Your task to perform on an android device: Find coffee shops on Maps Image 0: 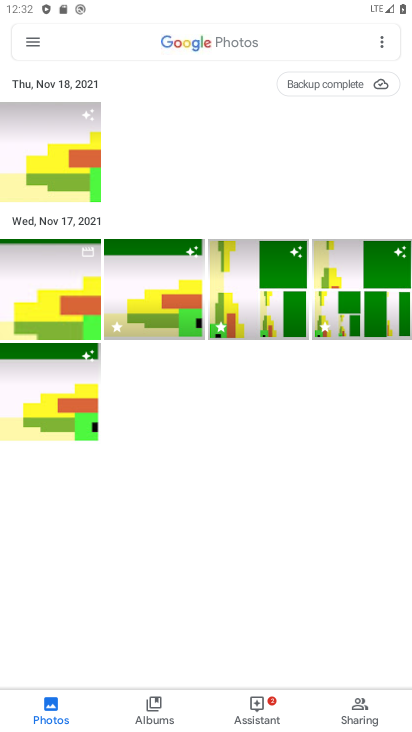
Step 0: press home button
Your task to perform on an android device: Find coffee shops on Maps Image 1: 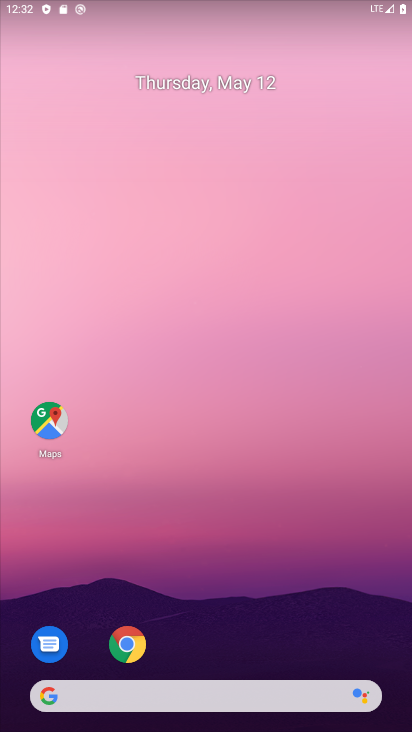
Step 1: click (58, 413)
Your task to perform on an android device: Find coffee shops on Maps Image 2: 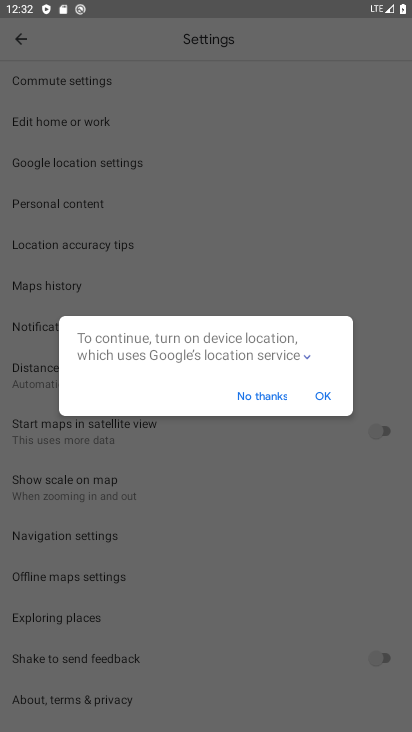
Step 2: click (265, 391)
Your task to perform on an android device: Find coffee shops on Maps Image 3: 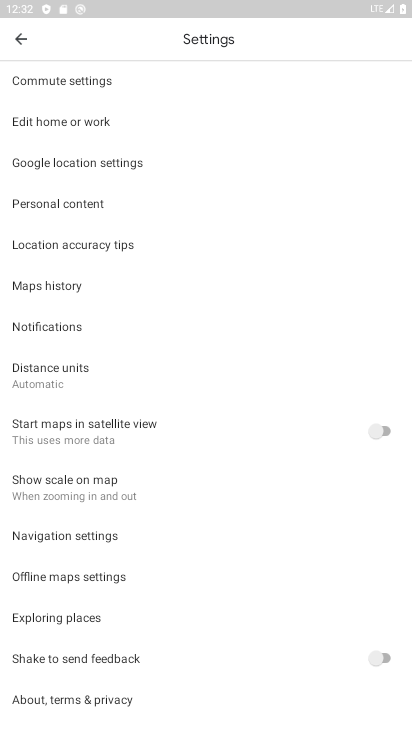
Step 3: click (19, 52)
Your task to perform on an android device: Find coffee shops on Maps Image 4: 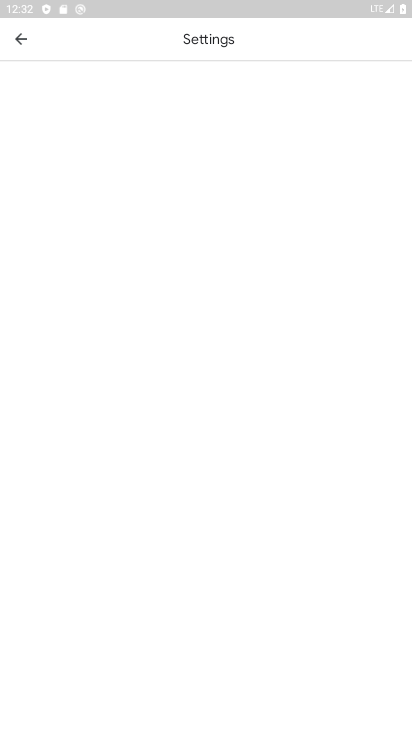
Step 4: click (15, 36)
Your task to perform on an android device: Find coffee shops on Maps Image 5: 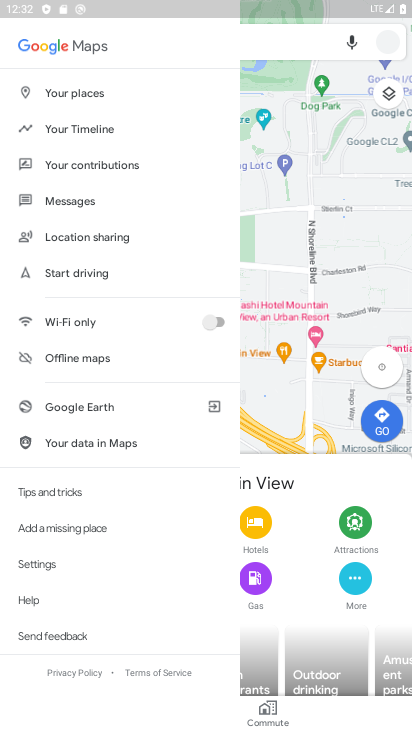
Step 5: click (171, 46)
Your task to perform on an android device: Find coffee shops on Maps Image 6: 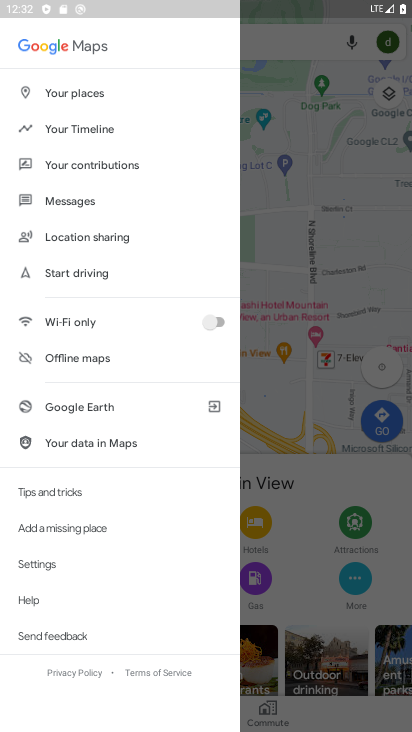
Step 6: click (266, 52)
Your task to perform on an android device: Find coffee shops on Maps Image 7: 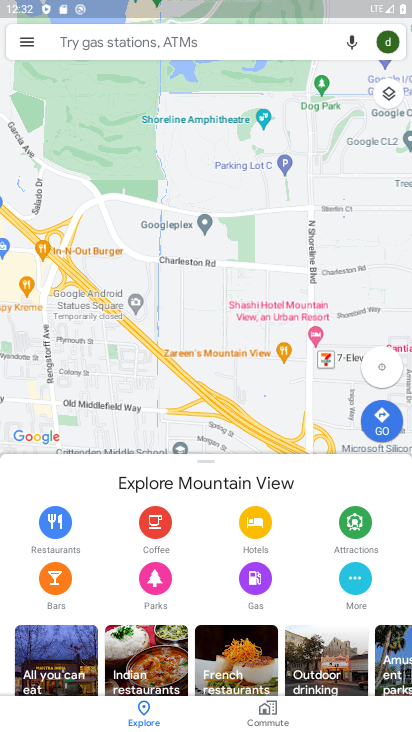
Step 7: click (263, 49)
Your task to perform on an android device: Find coffee shops on Maps Image 8: 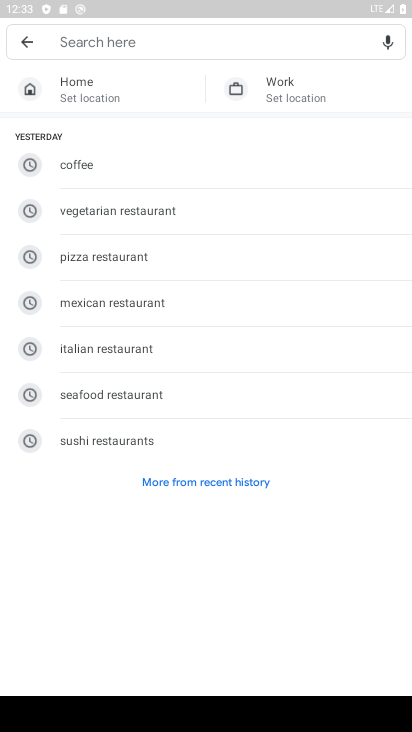
Step 8: click (90, 170)
Your task to perform on an android device: Find coffee shops on Maps Image 9: 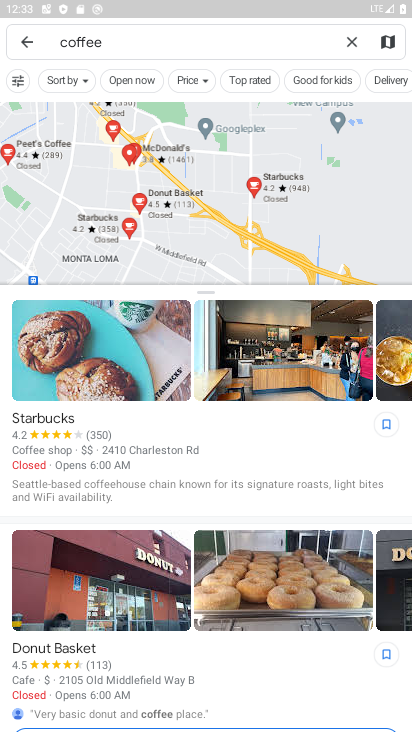
Step 9: task complete